Your task to perform on an android device: change the clock display to digital Image 0: 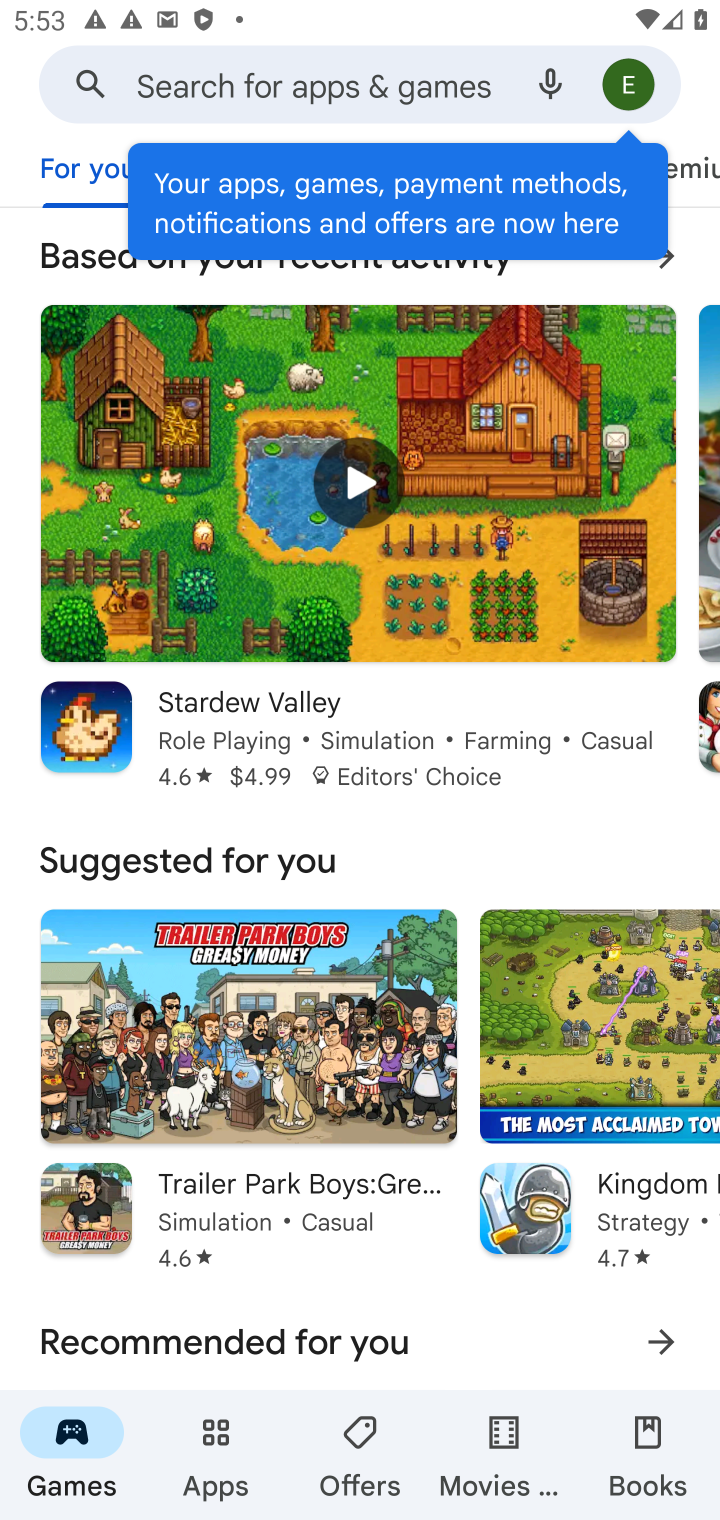
Step 0: press back button
Your task to perform on an android device: change the clock display to digital Image 1: 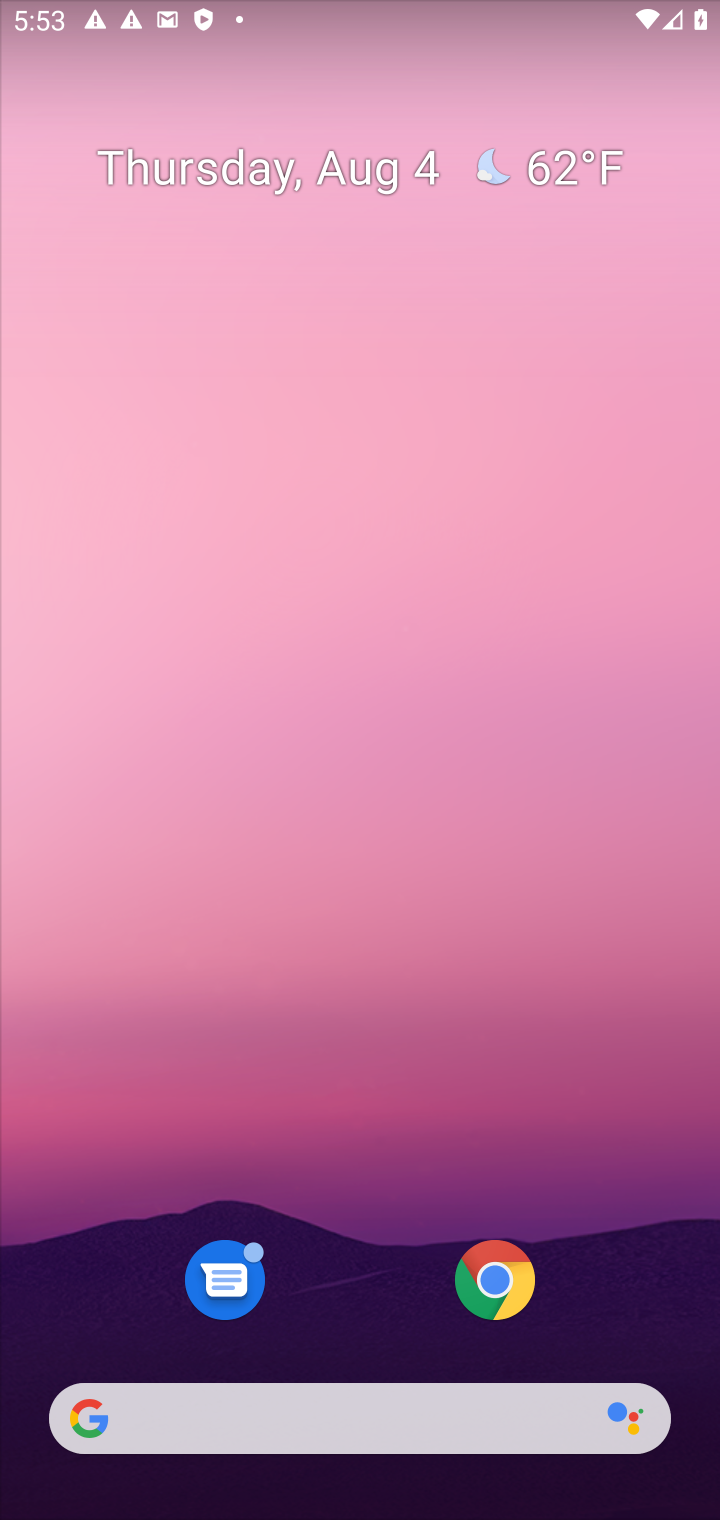
Step 1: drag from (379, 336) to (339, 503)
Your task to perform on an android device: change the clock display to digital Image 2: 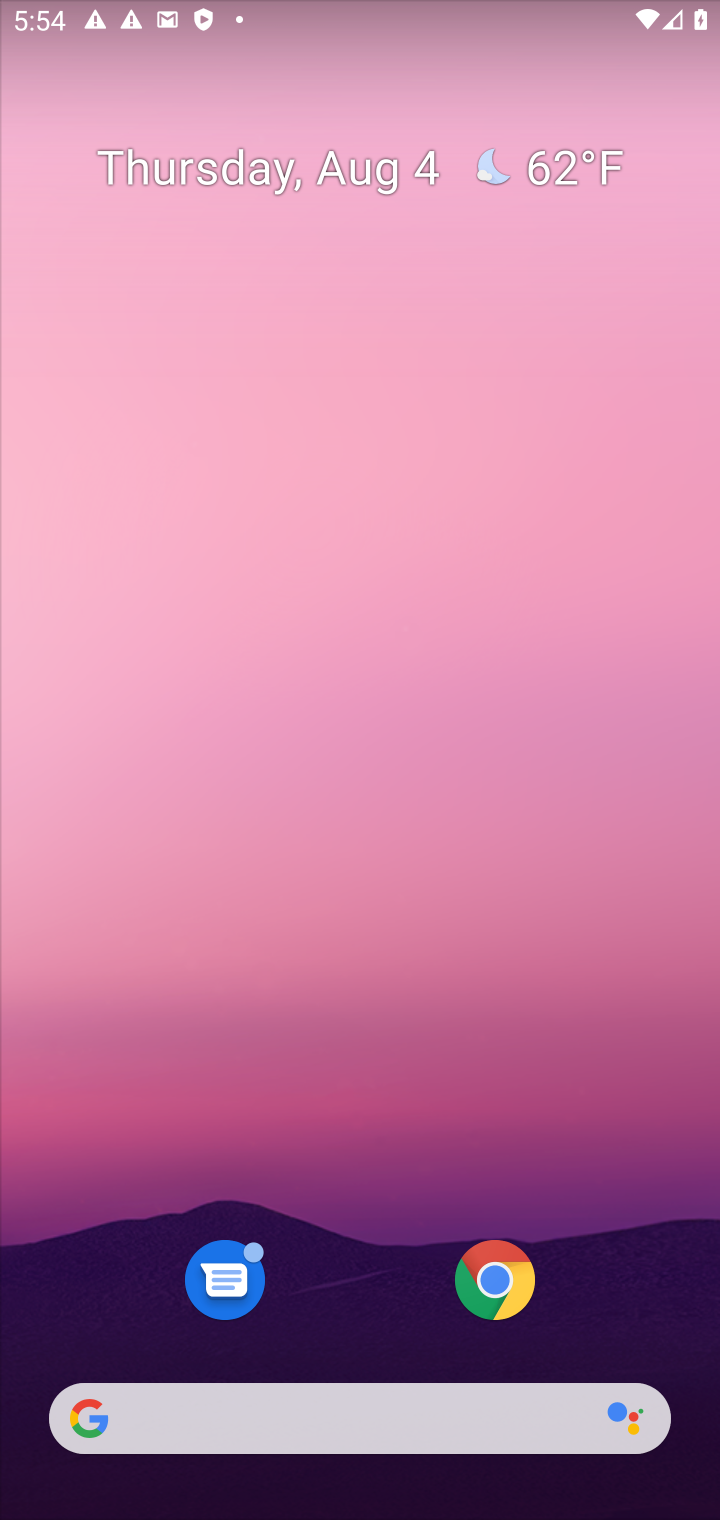
Step 2: drag from (367, 1052) to (302, 189)
Your task to perform on an android device: change the clock display to digital Image 3: 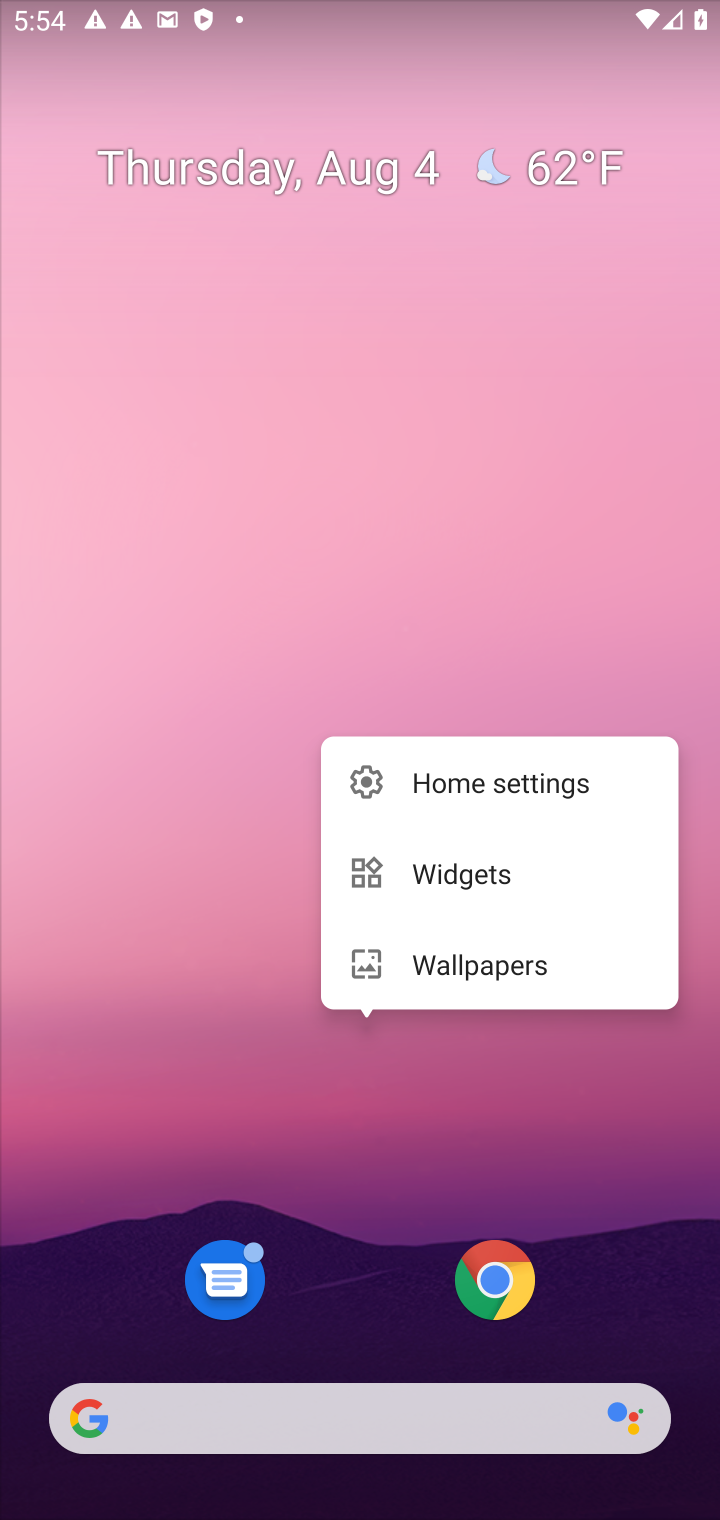
Step 3: click (382, 1345)
Your task to perform on an android device: change the clock display to digital Image 4: 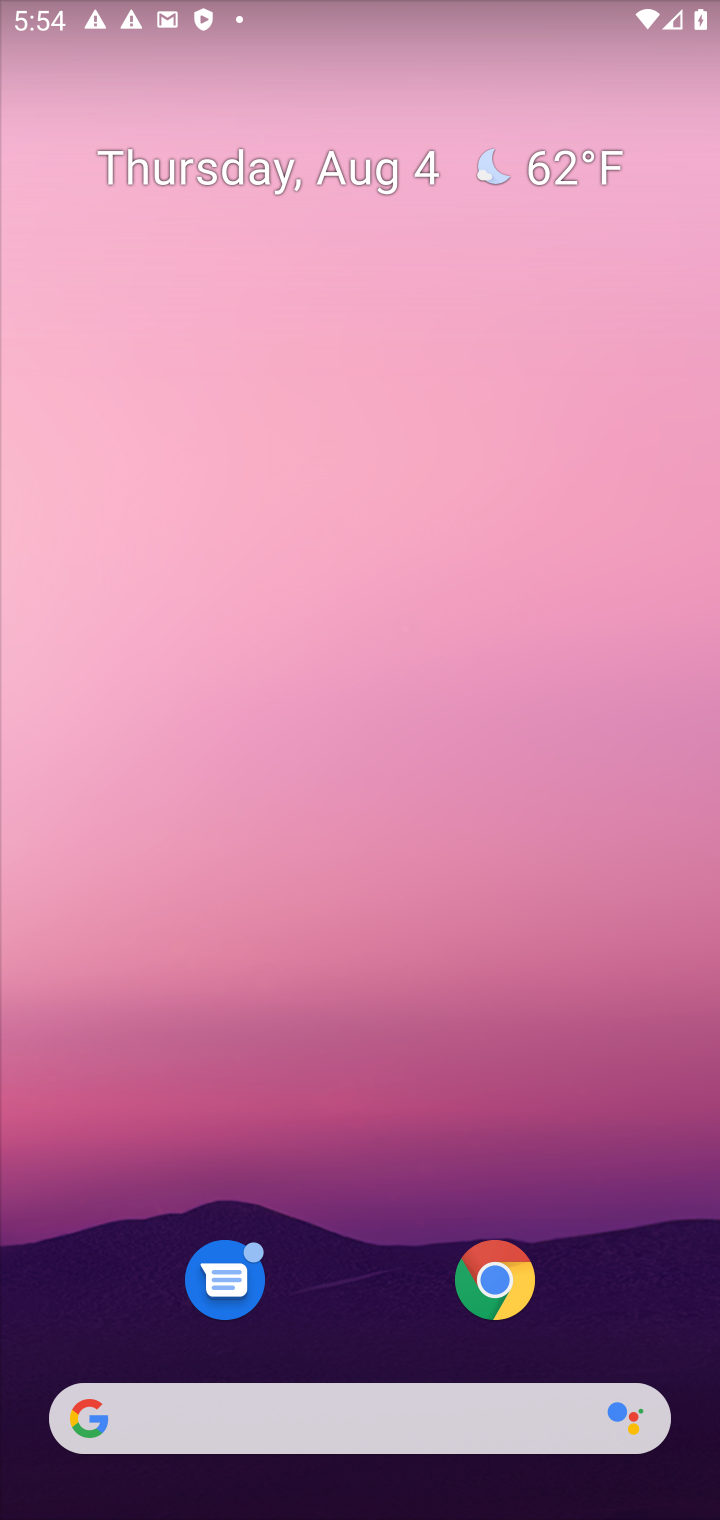
Step 4: drag from (382, 1257) to (384, 123)
Your task to perform on an android device: change the clock display to digital Image 5: 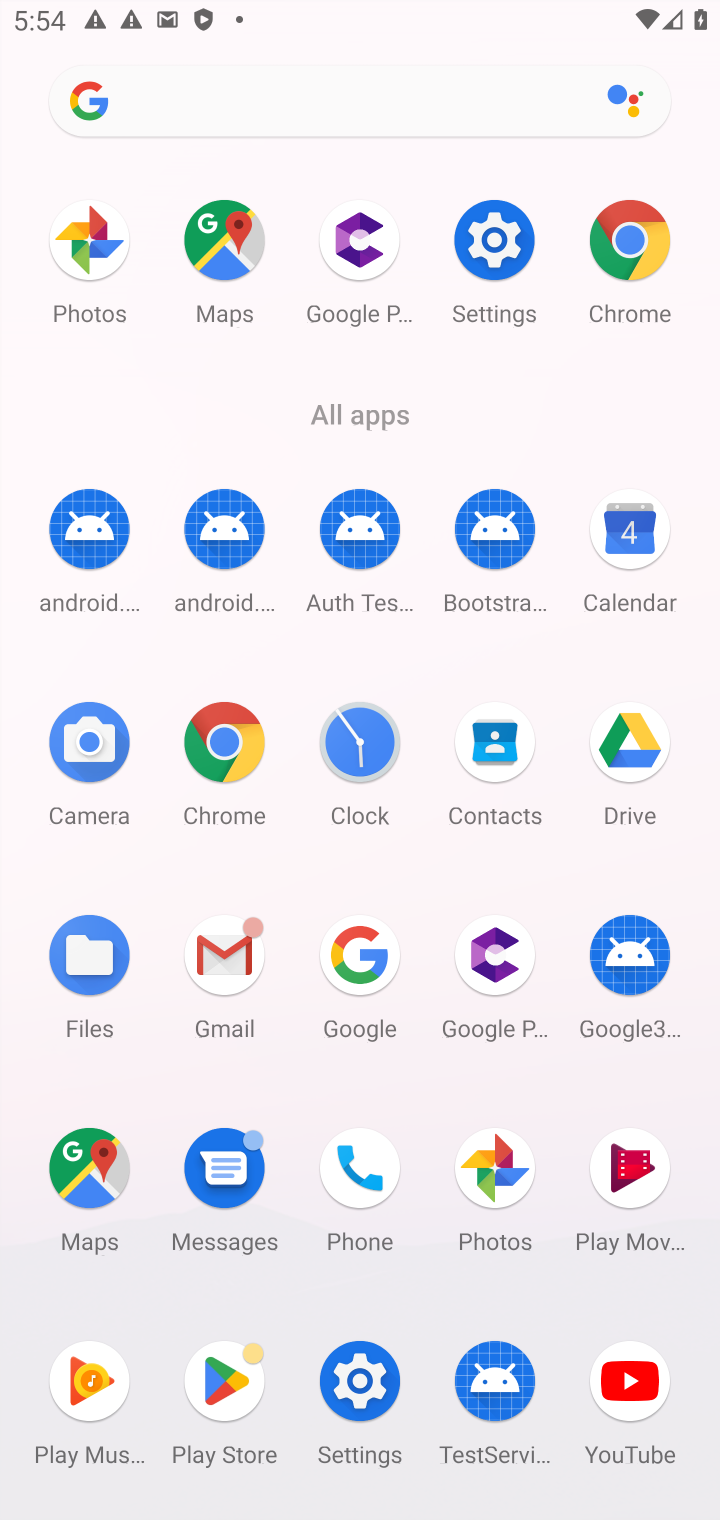
Step 5: click (370, 757)
Your task to perform on an android device: change the clock display to digital Image 6: 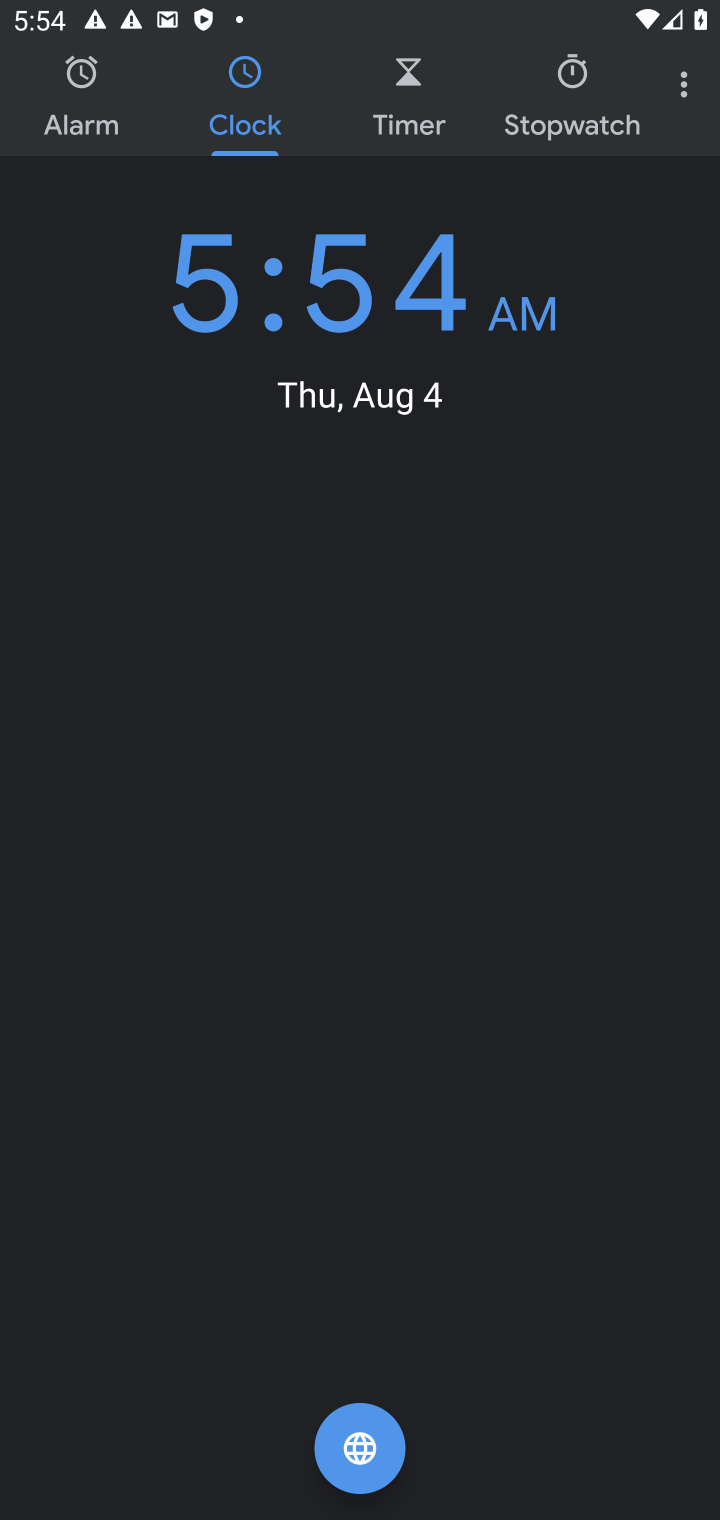
Step 6: click (683, 87)
Your task to perform on an android device: change the clock display to digital Image 7: 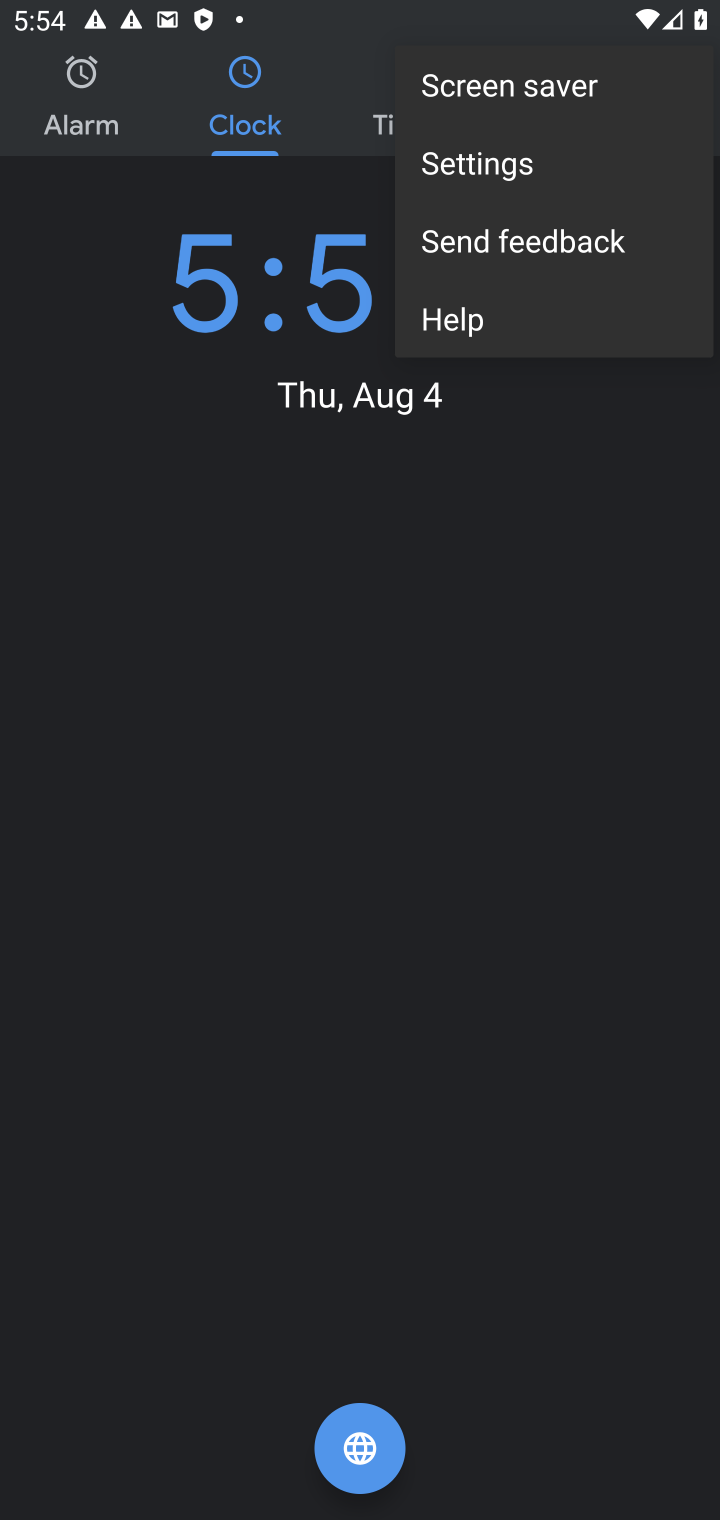
Step 7: click (489, 157)
Your task to perform on an android device: change the clock display to digital Image 8: 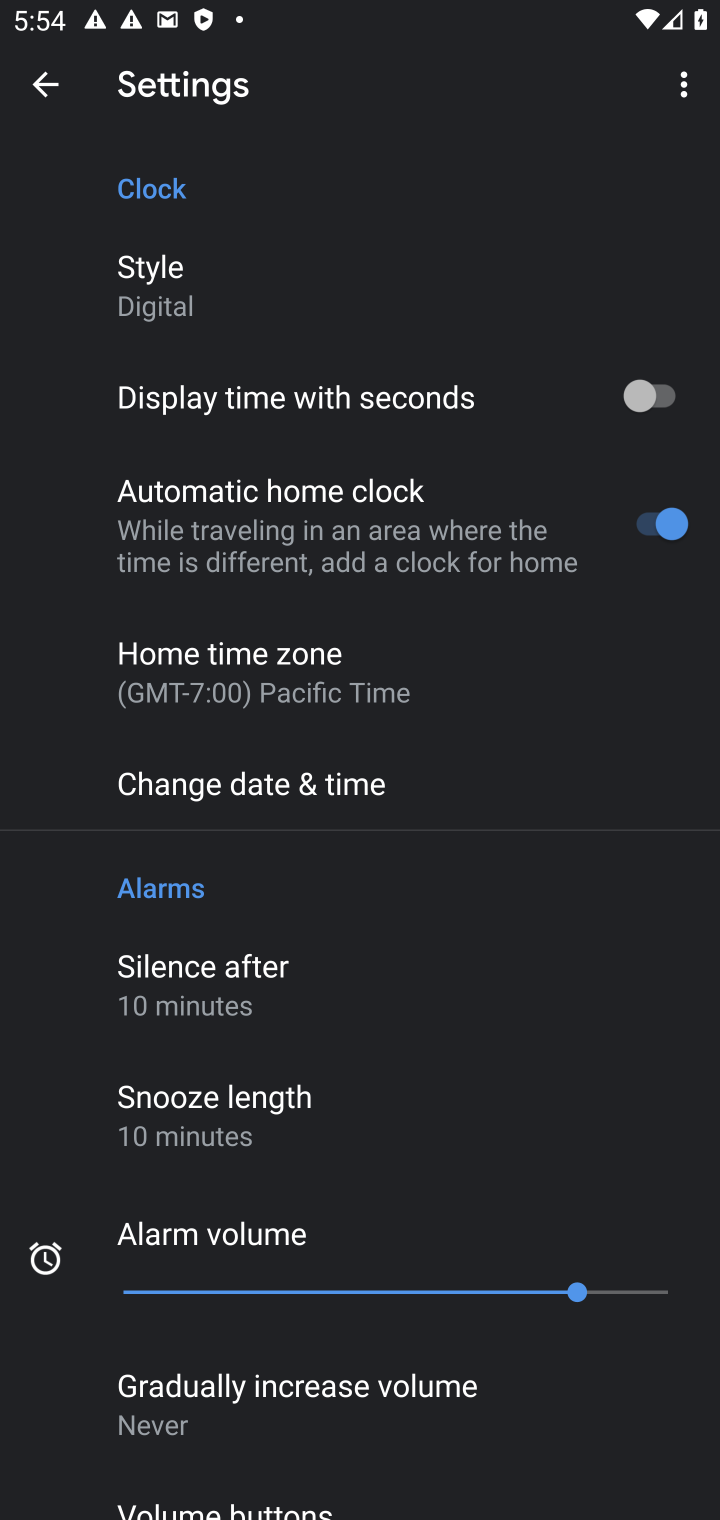
Step 8: task complete